Your task to perform on an android device: Clear all items from cart on walmart. Add "apple airpods" to the cart on walmart Image 0: 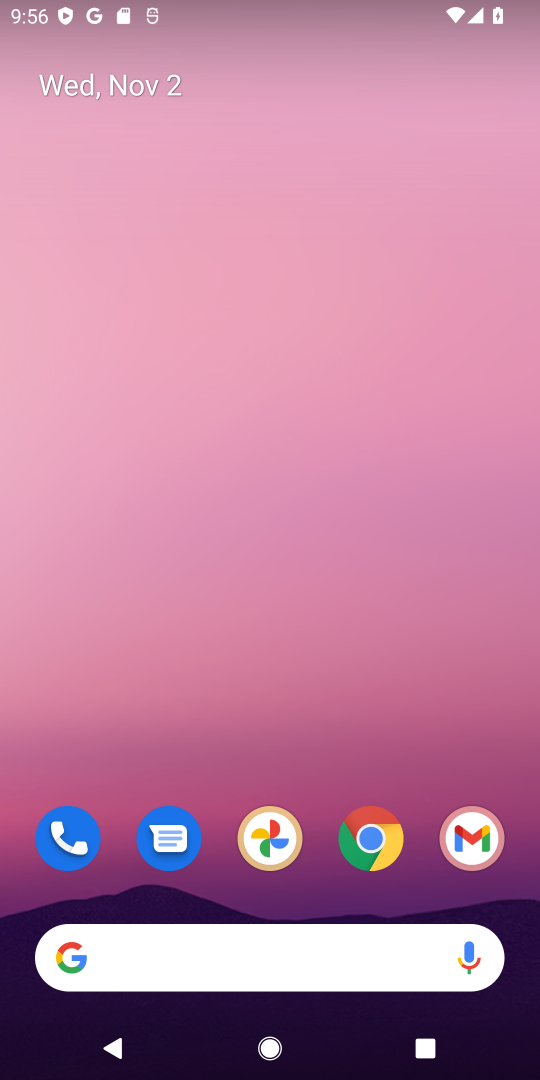
Step 0: click (368, 848)
Your task to perform on an android device: Clear all items from cart on walmart. Add "apple airpods" to the cart on walmart Image 1: 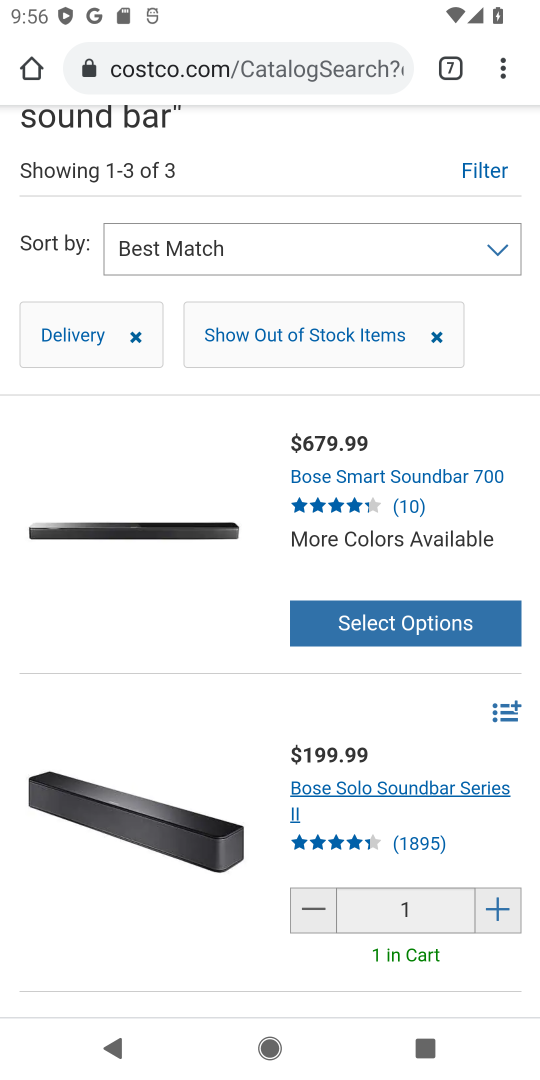
Step 1: click (443, 69)
Your task to perform on an android device: Clear all items from cart on walmart. Add "apple airpods" to the cart on walmart Image 2: 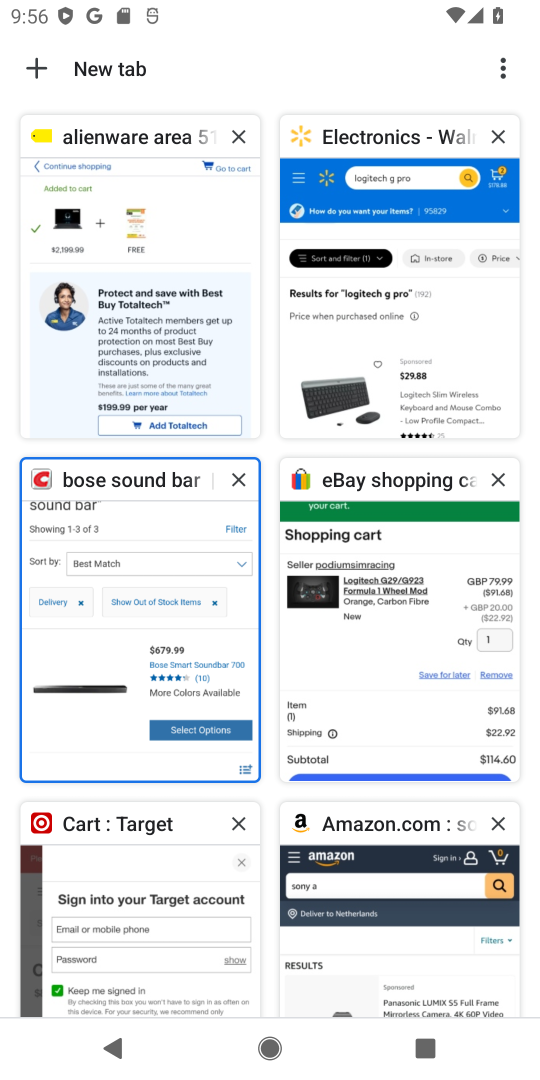
Step 2: click (393, 346)
Your task to perform on an android device: Clear all items from cart on walmart. Add "apple airpods" to the cart on walmart Image 3: 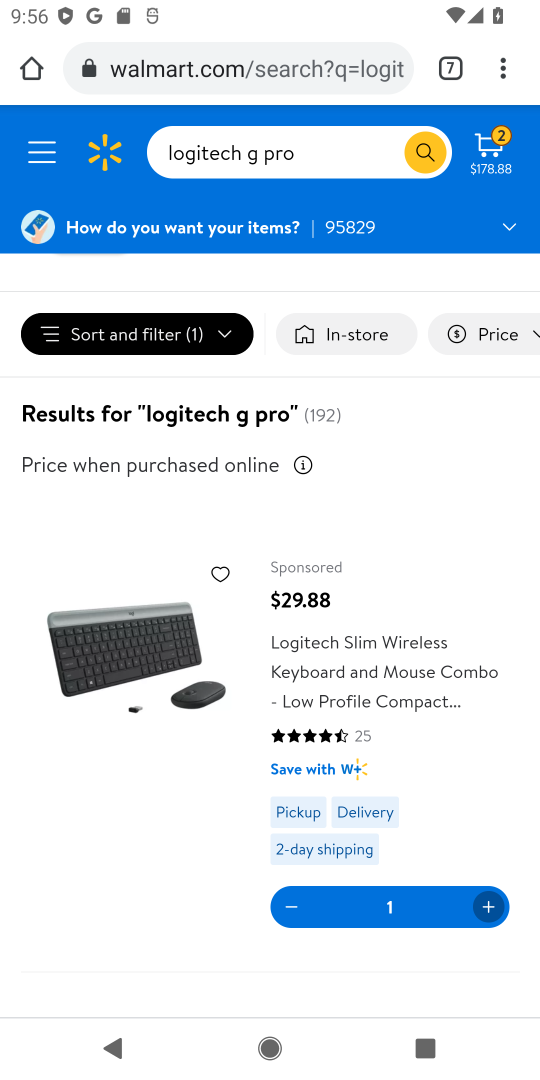
Step 3: click (490, 159)
Your task to perform on an android device: Clear all items from cart on walmart. Add "apple airpods" to the cart on walmart Image 4: 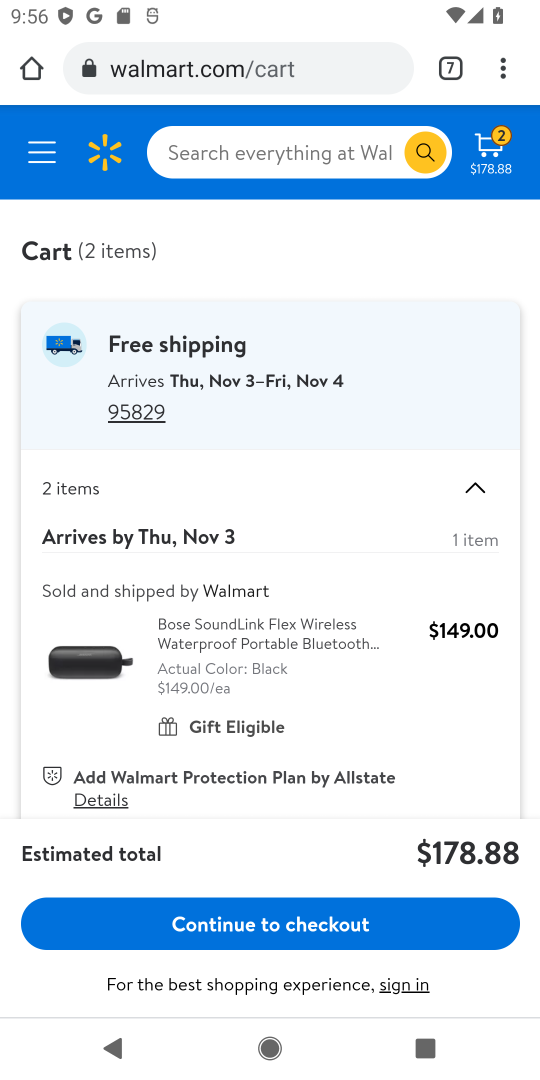
Step 4: drag from (204, 772) to (232, 342)
Your task to perform on an android device: Clear all items from cart on walmart. Add "apple airpods" to the cart on walmart Image 5: 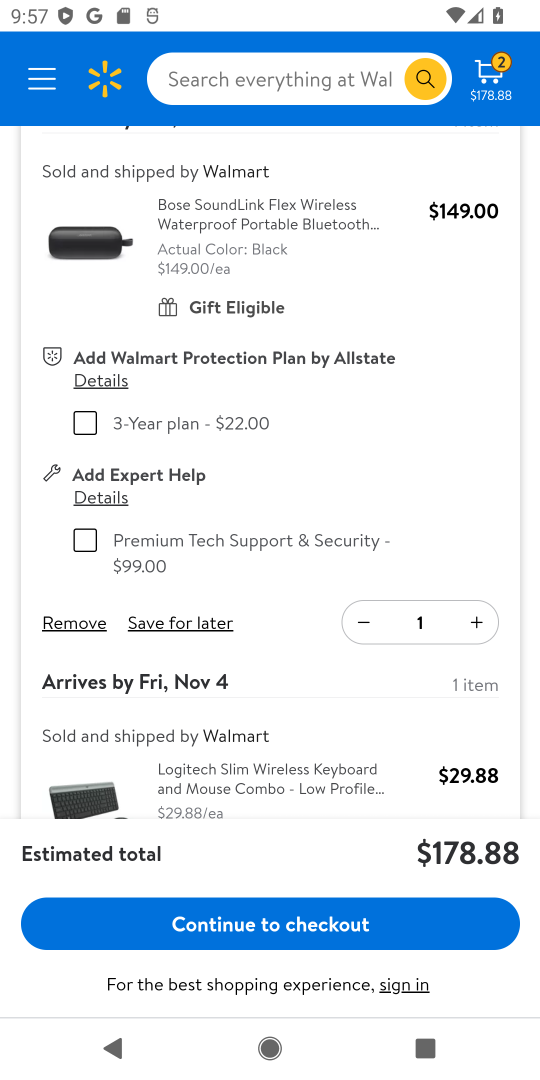
Step 5: click (54, 628)
Your task to perform on an android device: Clear all items from cart on walmart. Add "apple airpods" to the cart on walmart Image 6: 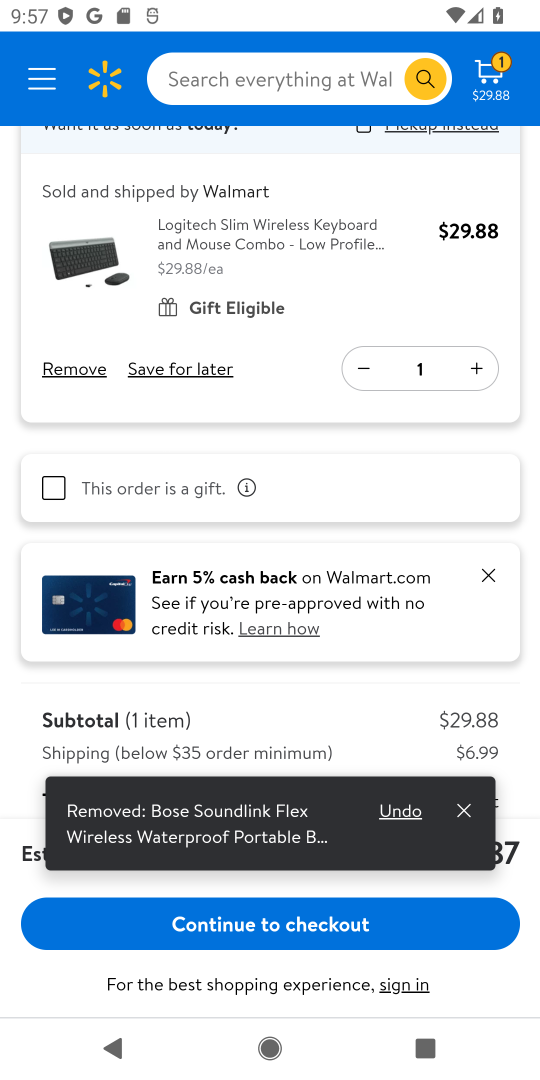
Step 6: click (74, 361)
Your task to perform on an android device: Clear all items from cart on walmart. Add "apple airpods" to the cart on walmart Image 7: 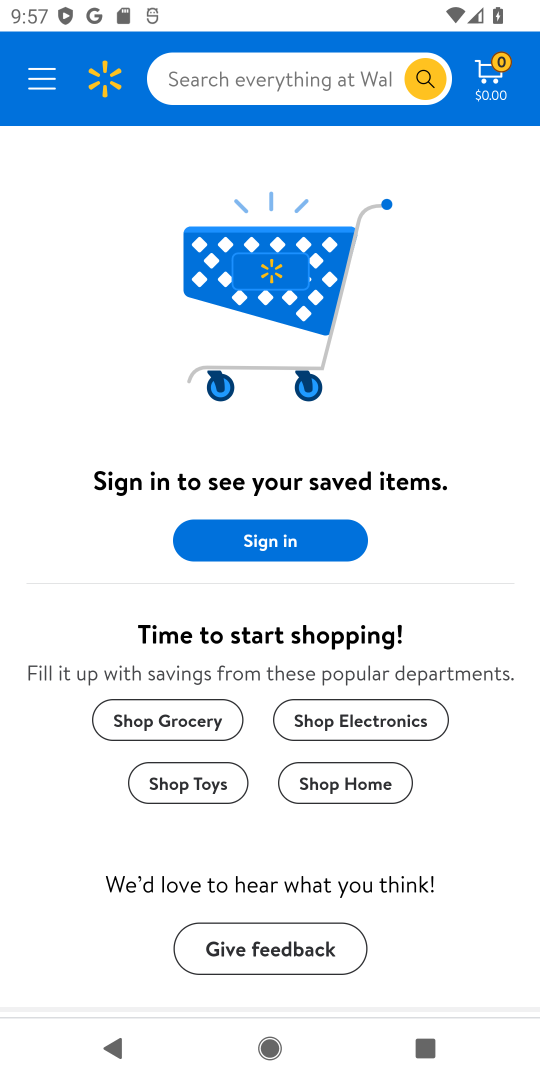
Step 7: click (214, 86)
Your task to perform on an android device: Clear all items from cart on walmart. Add "apple airpods" to the cart on walmart Image 8: 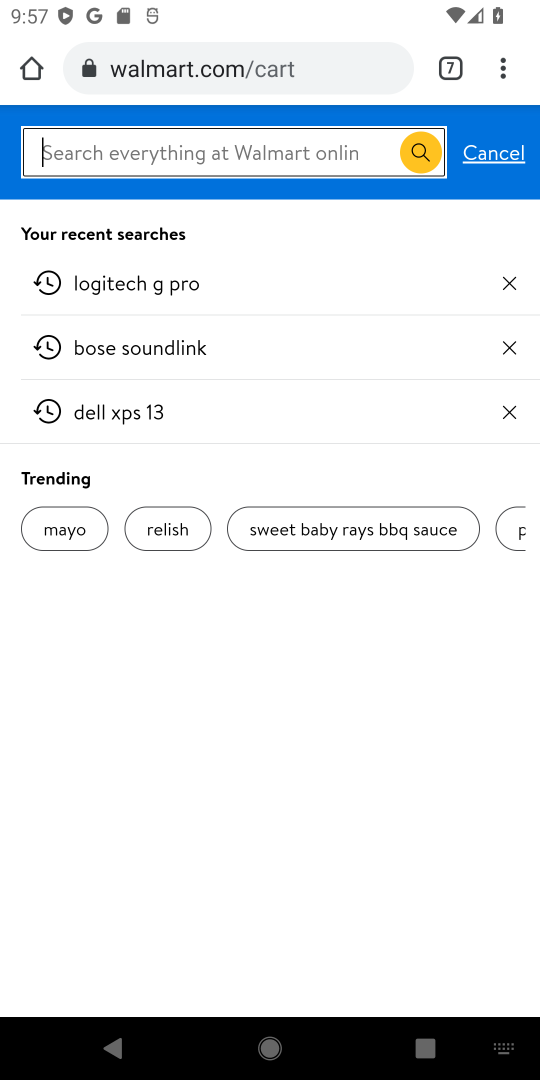
Step 8: type "apple airpods"
Your task to perform on an android device: Clear all items from cart on walmart. Add "apple airpods" to the cart on walmart Image 9: 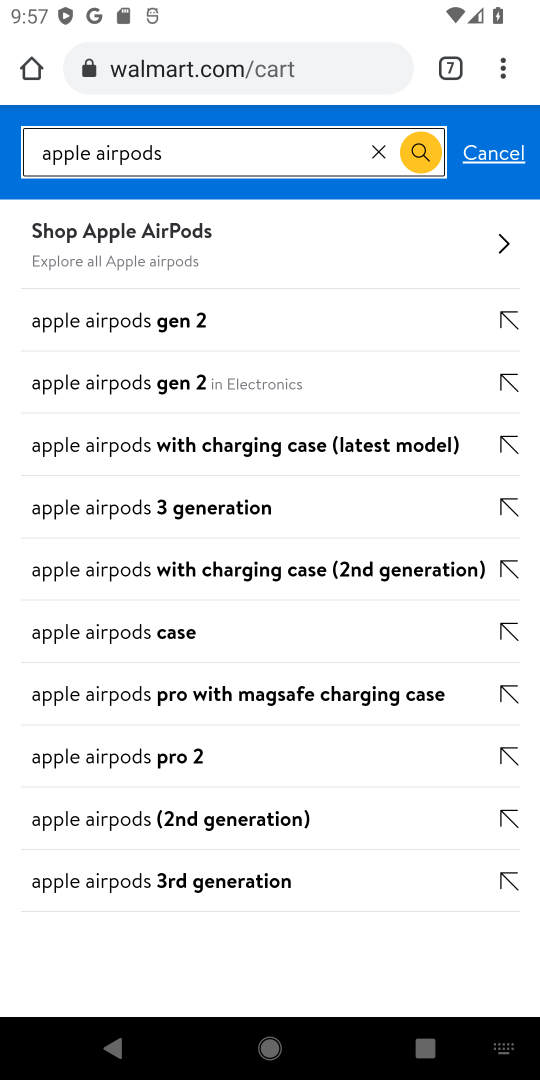
Step 9: click (237, 382)
Your task to perform on an android device: Clear all items from cart on walmart. Add "apple airpods" to the cart on walmart Image 10: 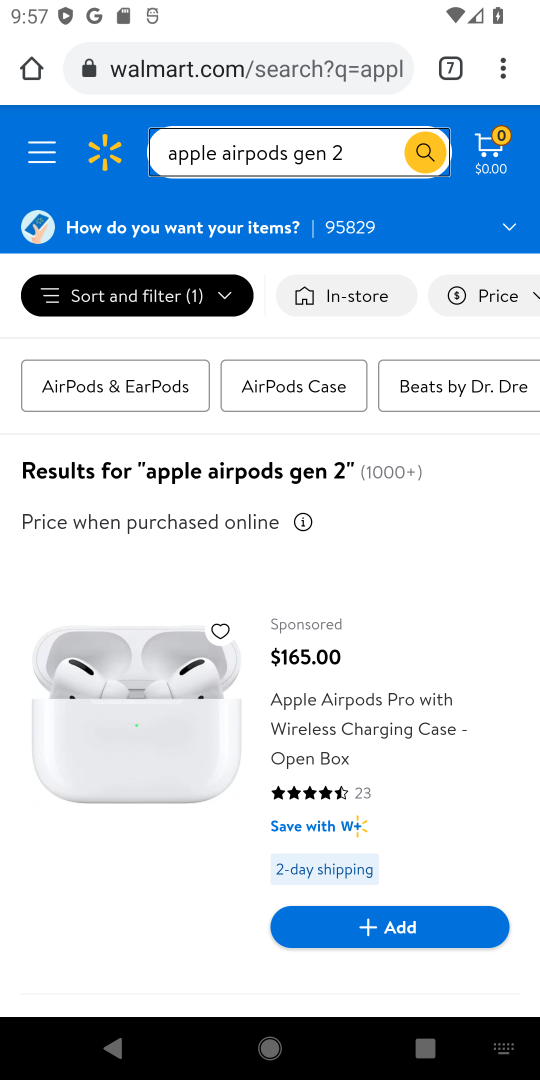
Step 10: click (404, 928)
Your task to perform on an android device: Clear all items from cart on walmart. Add "apple airpods" to the cart on walmart Image 11: 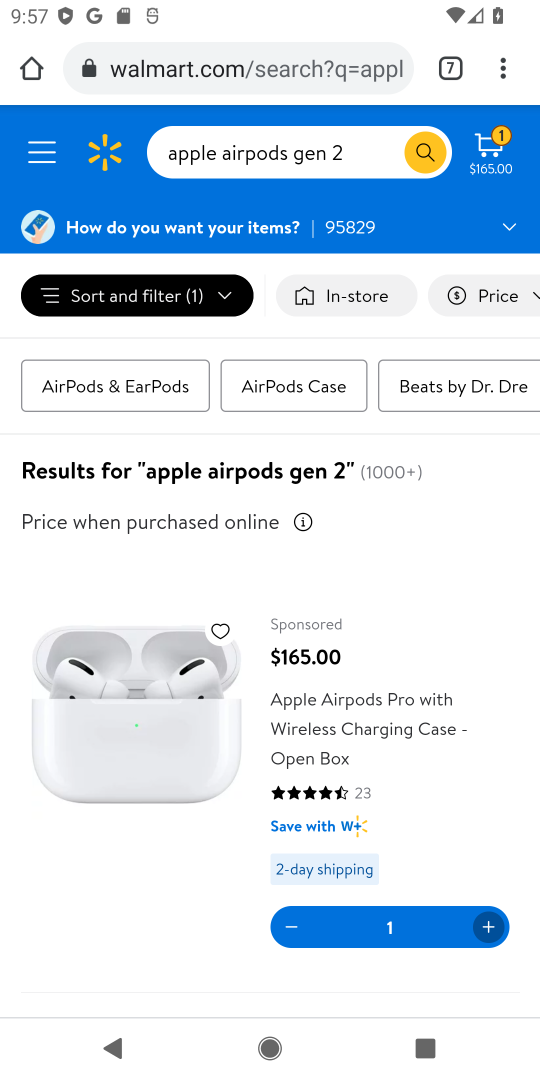
Step 11: task complete